Your task to perform on an android device: turn vacation reply on in the gmail app Image 0: 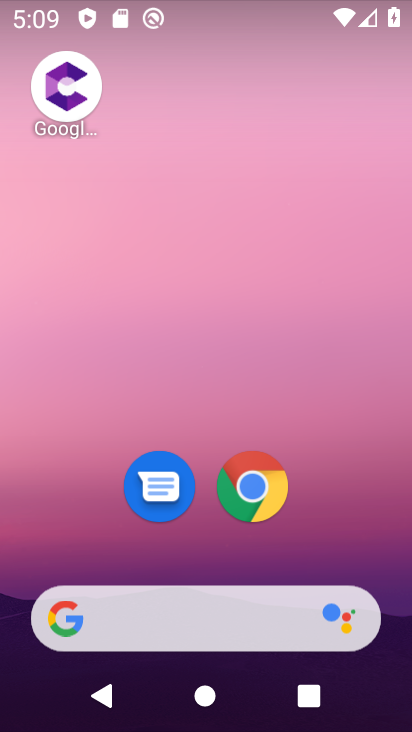
Step 0: drag from (65, 558) to (175, 102)
Your task to perform on an android device: turn vacation reply on in the gmail app Image 1: 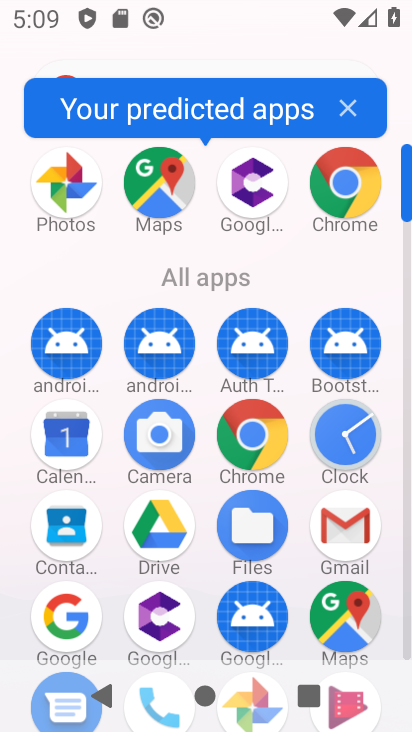
Step 1: drag from (163, 552) to (248, 244)
Your task to perform on an android device: turn vacation reply on in the gmail app Image 2: 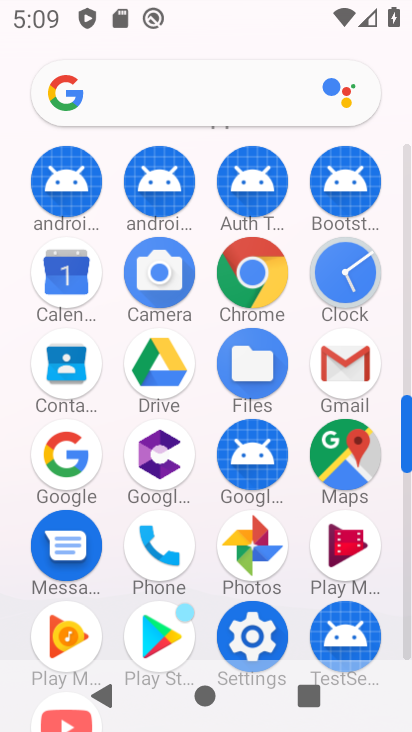
Step 2: click (331, 360)
Your task to perform on an android device: turn vacation reply on in the gmail app Image 3: 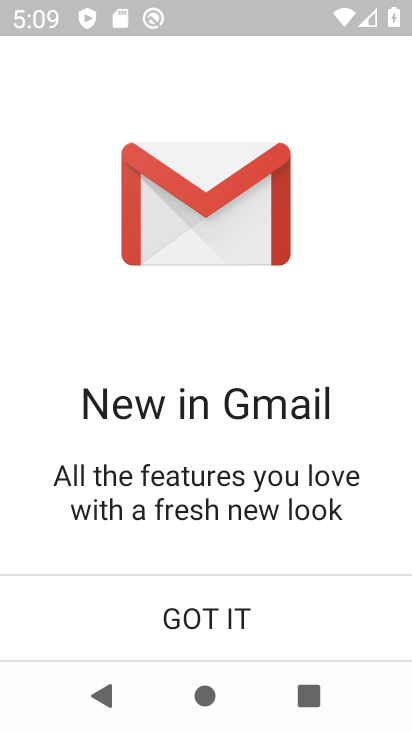
Step 3: click (224, 608)
Your task to perform on an android device: turn vacation reply on in the gmail app Image 4: 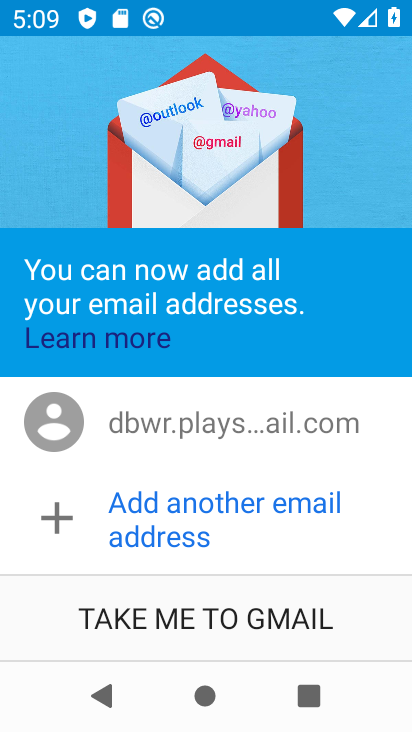
Step 4: click (286, 633)
Your task to perform on an android device: turn vacation reply on in the gmail app Image 5: 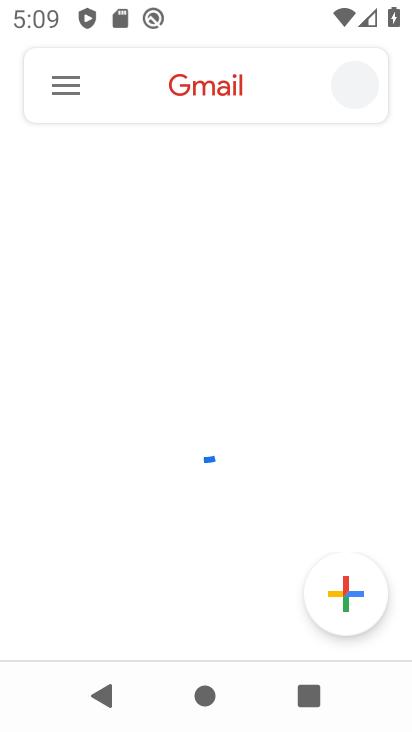
Step 5: click (82, 79)
Your task to perform on an android device: turn vacation reply on in the gmail app Image 6: 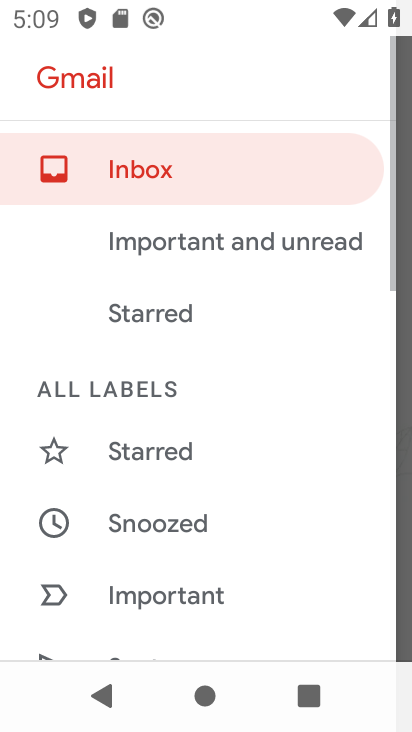
Step 6: drag from (105, 655) to (292, 101)
Your task to perform on an android device: turn vacation reply on in the gmail app Image 7: 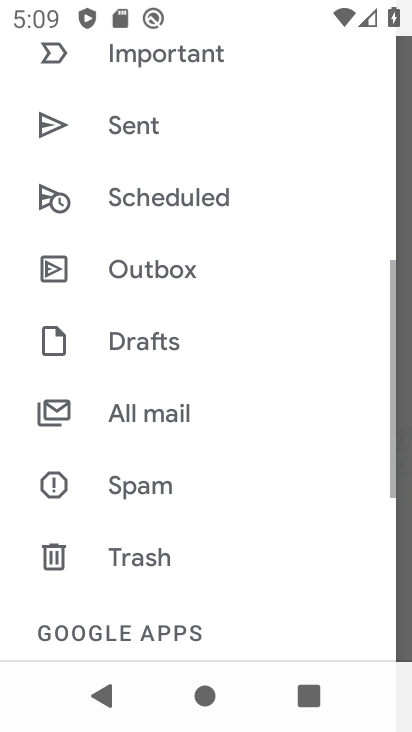
Step 7: drag from (167, 618) to (299, 119)
Your task to perform on an android device: turn vacation reply on in the gmail app Image 8: 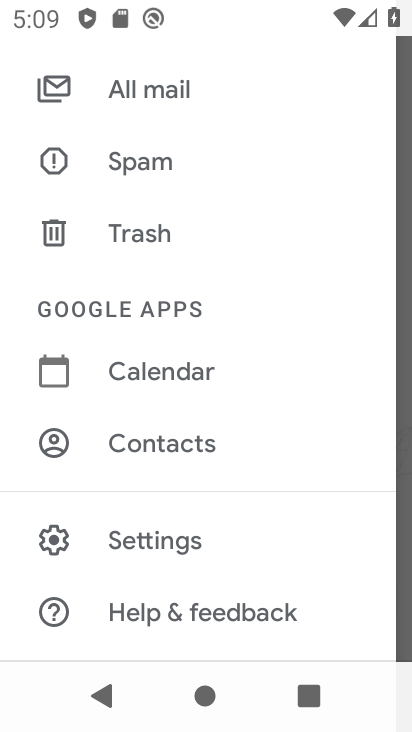
Step 8: click (174, 567)
Your task to perform on an android device: turn vacation reply on in the gmail app Image 9: 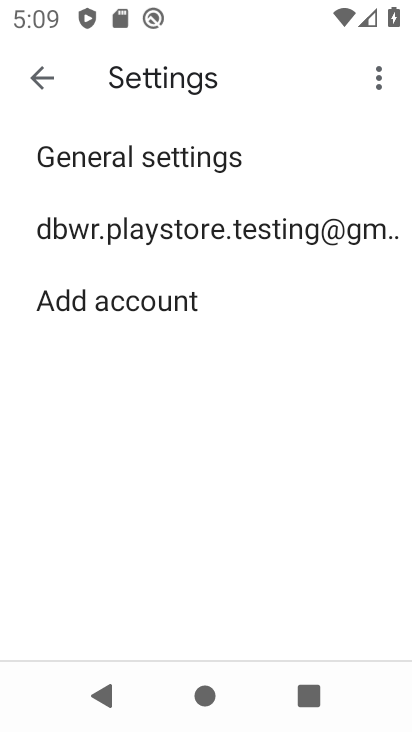
Step 9: click (229, 208)
Your task to perform on an android device: turn vacation reply on in the gmail app Image 10: 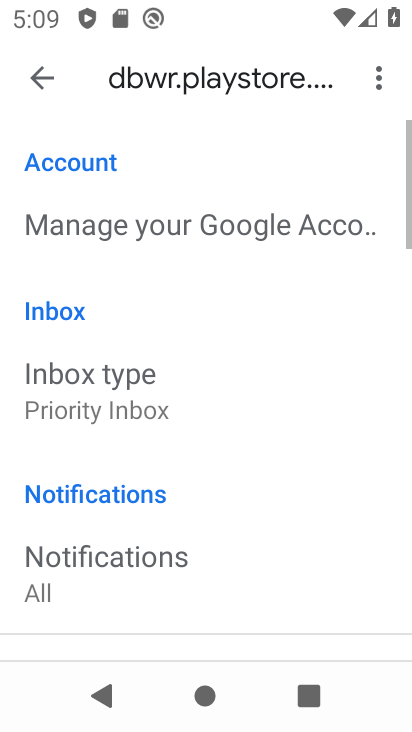
Step 10: drag from (115, 621) to (242, 142)
Your task to perform on an android device: turn vacation reply on in the gmail app Image 11: 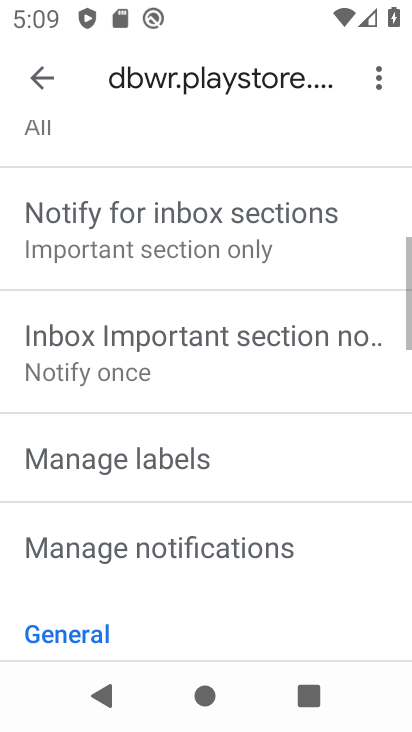
Step 11: drag from (130, 604) to (249, 232)
Your task to perform on an android device: turn vacation reply on in the gmail app Image 12: 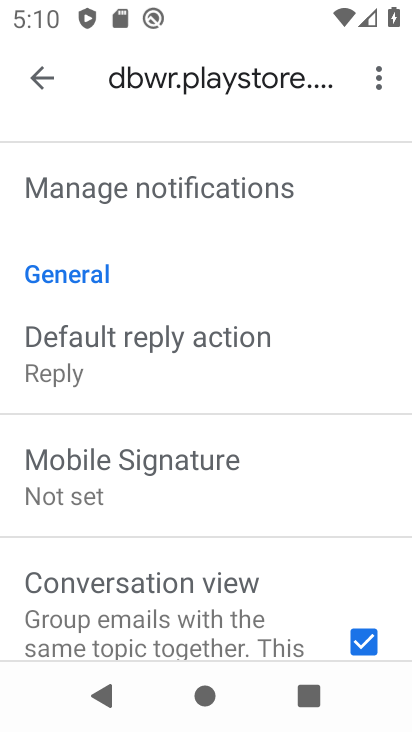
Step 12: drag from (185, 563) to (278, 187)
Your task to perform on an android device: turn vacation reply on in the gmail app Image 13: 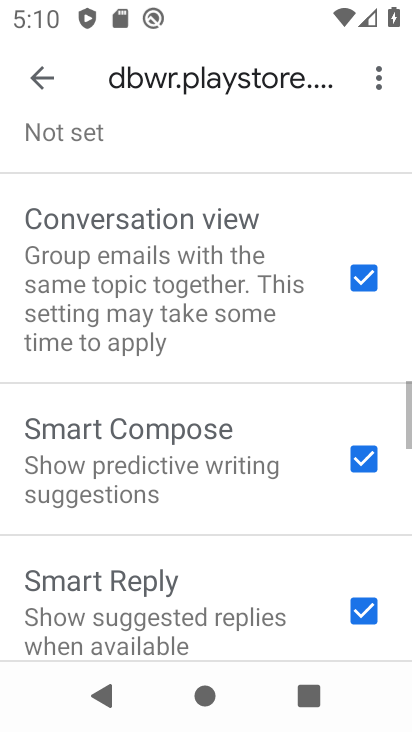
Step 13: drag from (148, 558) to (216, 281)
Your task to perform on an android device: turn vacation reply on in the gmail app Image 14: 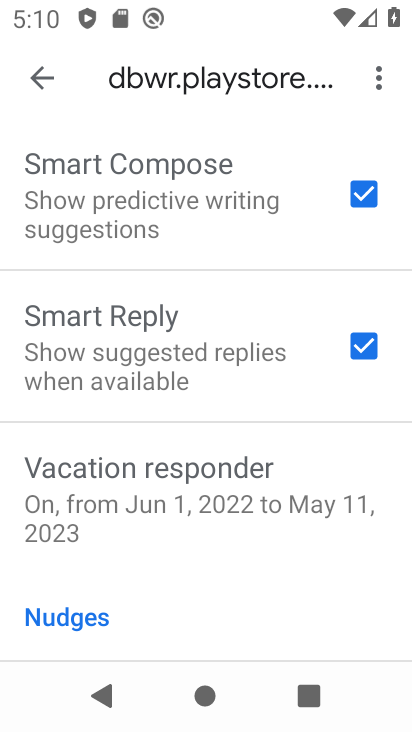
Step 14: click (204, 483)
Your task to perform on an android device: turn vacation reply on in the gmail app Image 15: 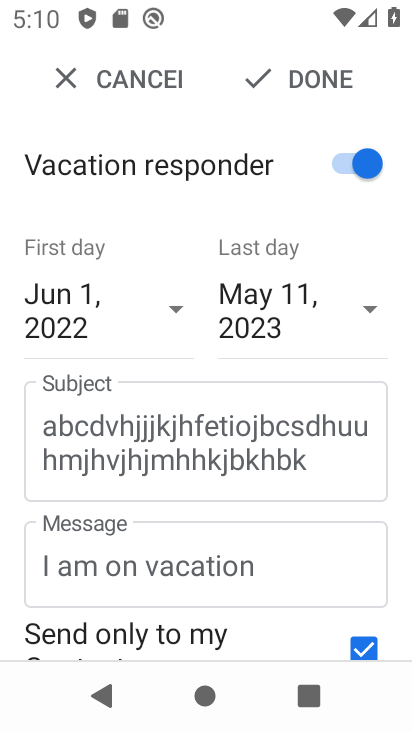
Step 15: task complete